Your task to perform on an android device: Open calendar and show me the first week of next month Image 0: 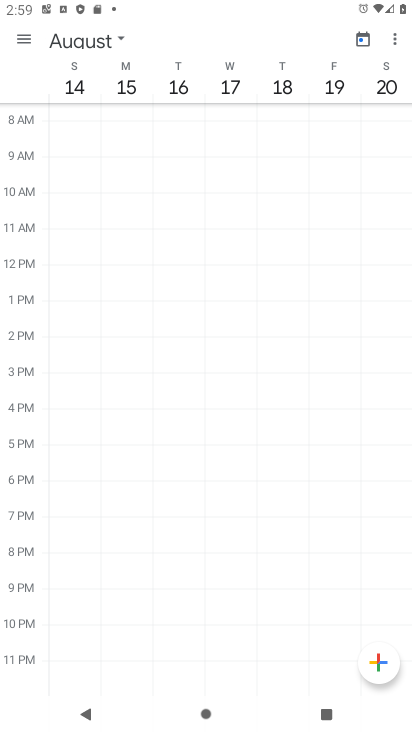
Step 0: click (120, 38)
Your task to perform on an android device: Open calendar and show me the first week of next month Image 1: 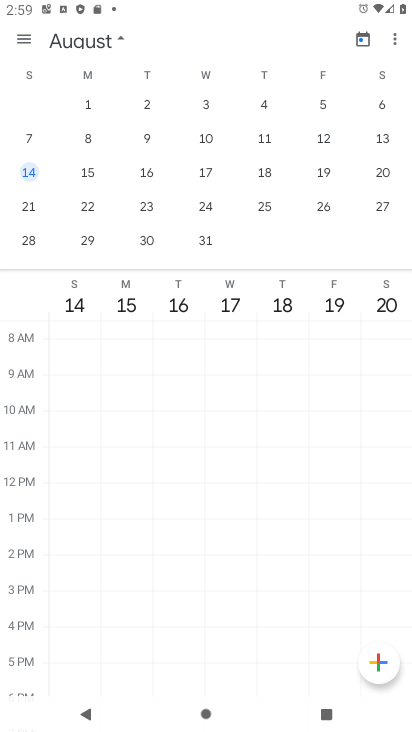
Step 1: click (27, 137)
Your task to perform on an android device: Open calendar and show me the first week of next month Image 2: 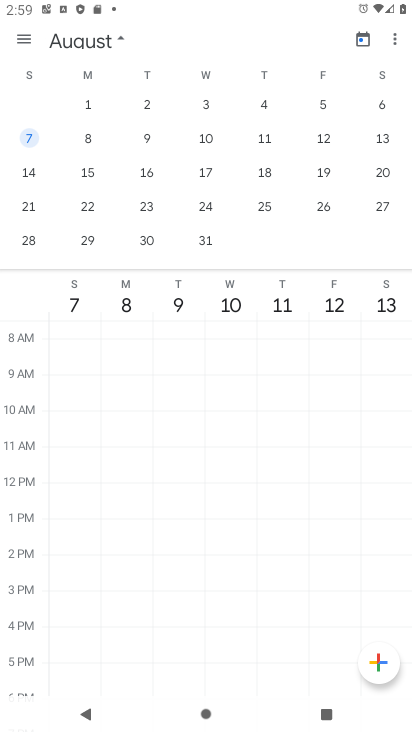
Step 2: task complete